Your task to perform on an android device: Go to sound settings Image 0: 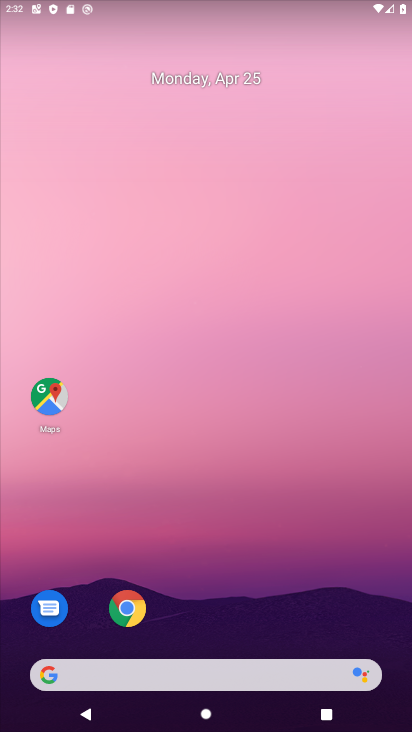
Step 0: drag from (362, 577) to (372, 88)
Your task to perform on an android device: Go to sound settings Image 1: 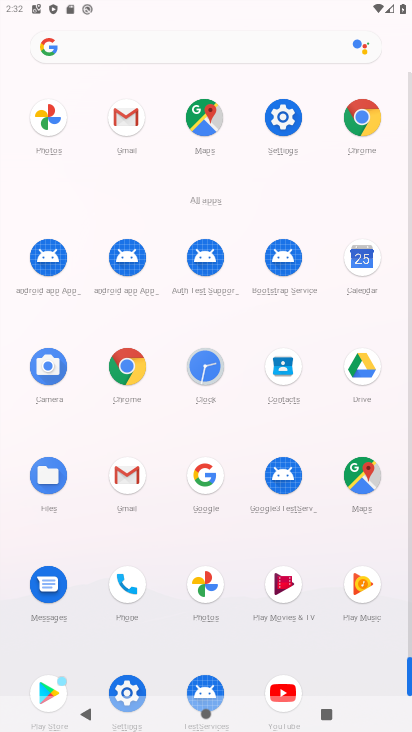
Step 1: click (289, 120)
Your task to perform on an android device: Go to sound settings Image 2: 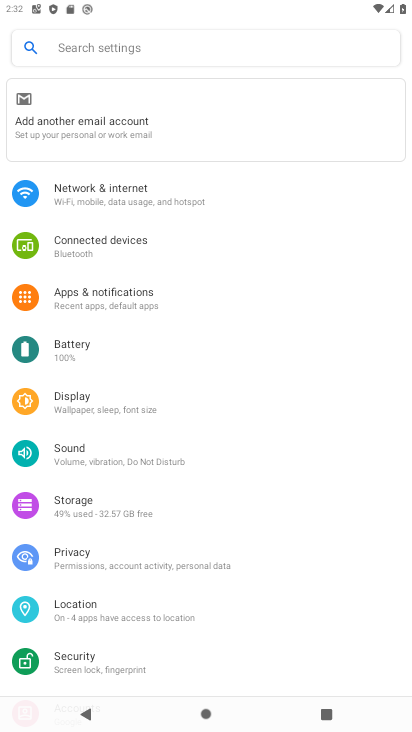
Step 2: drag from (323, 550) to (321, 449)
Your task to perform on an android device: Go to sound settings Image 3: 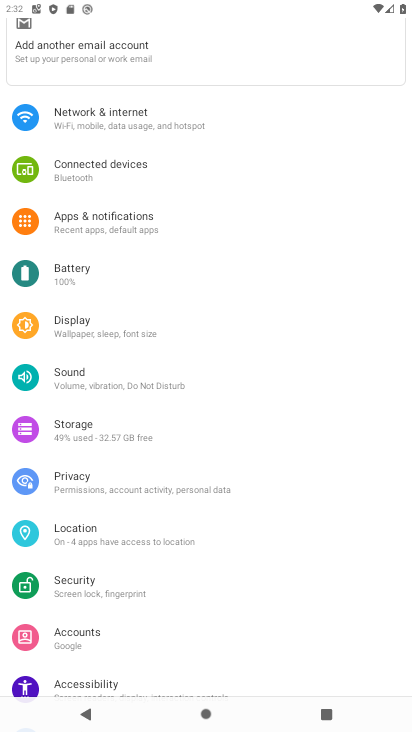
Step 3: drag from (324, 600) to (319, 451)
Your task to perform on an android device: Go to sound settings Image 4: 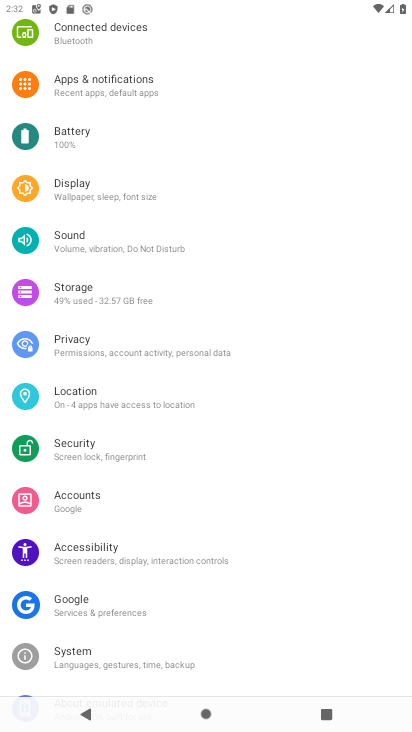
Step 4: drag from (327, 578) to (328, 379)
Your task to perform on an android device: Go to sound settings Image 5: 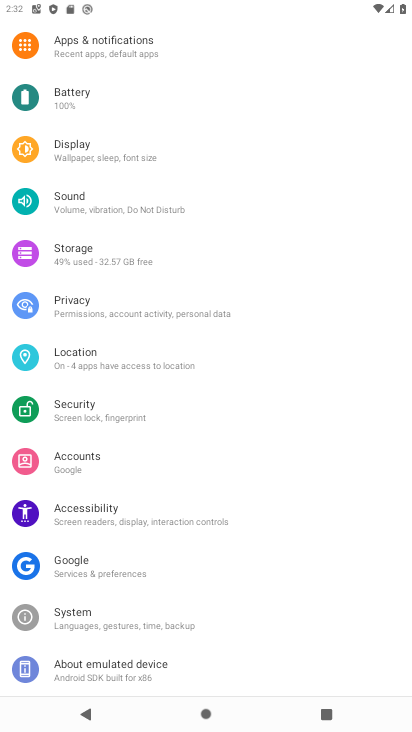
Step 5: drag from (312, 265) to (313, 392)
Your task to perform on an android device: Go to sound settings Image 6: 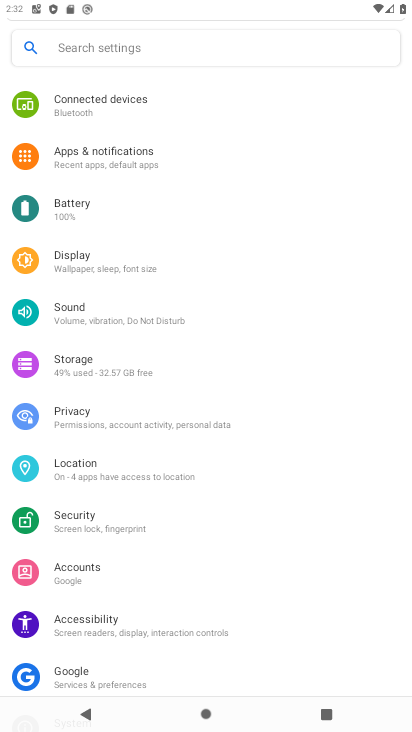
Step 6: drag from (318, 244) to (323, 370)
Your task to perform on an android device: Go to sound settings Image 7: 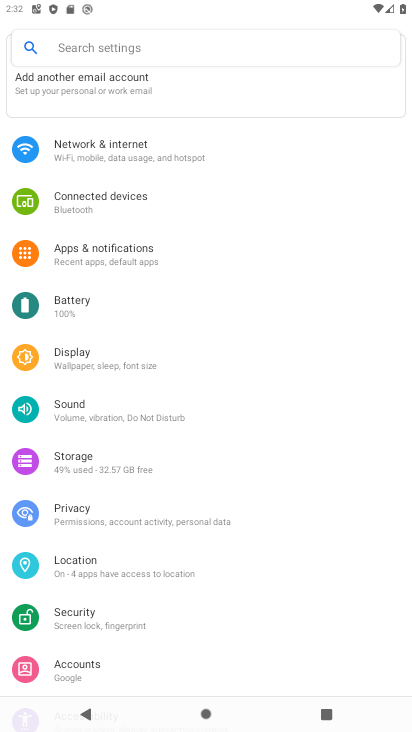
Step 7: drag from (327, 286) to (315, 402)
Your task to perform on an android device: Go to sound settings Image 8: 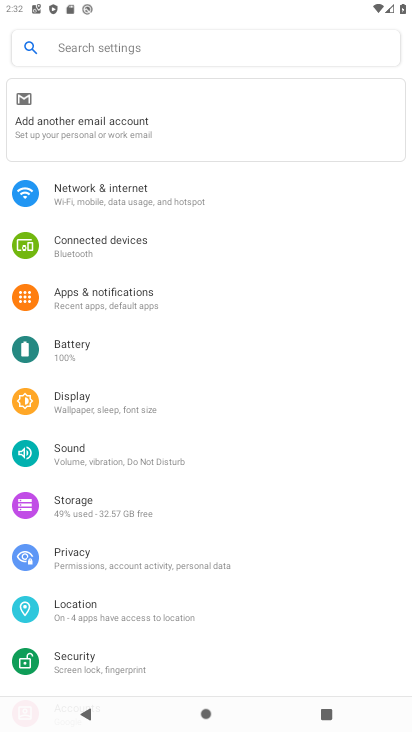
Step 8: drag from (294, 270) to (294, 415)
Your task to perform on an android device: Go to sound settings Image 9: 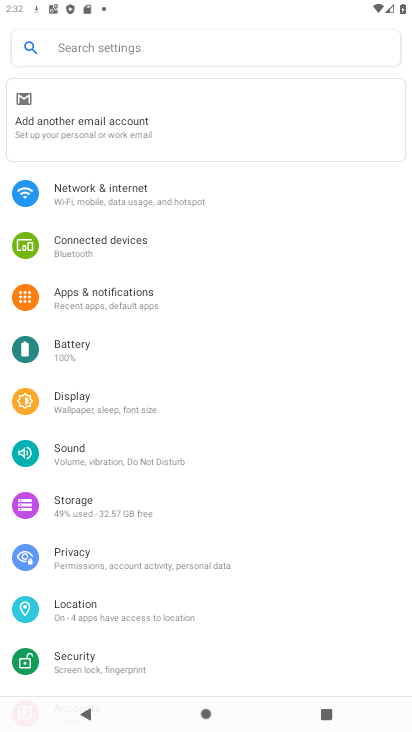
Step 9: click (154, 456)
Your task to perform on an android device: Go to sound settings Image 10: 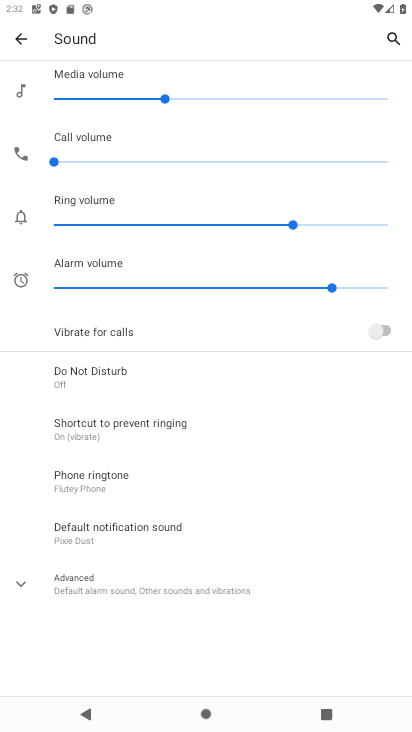
Step 10: task complete